Your task to perform on an android device: toggle wifi Image 0: 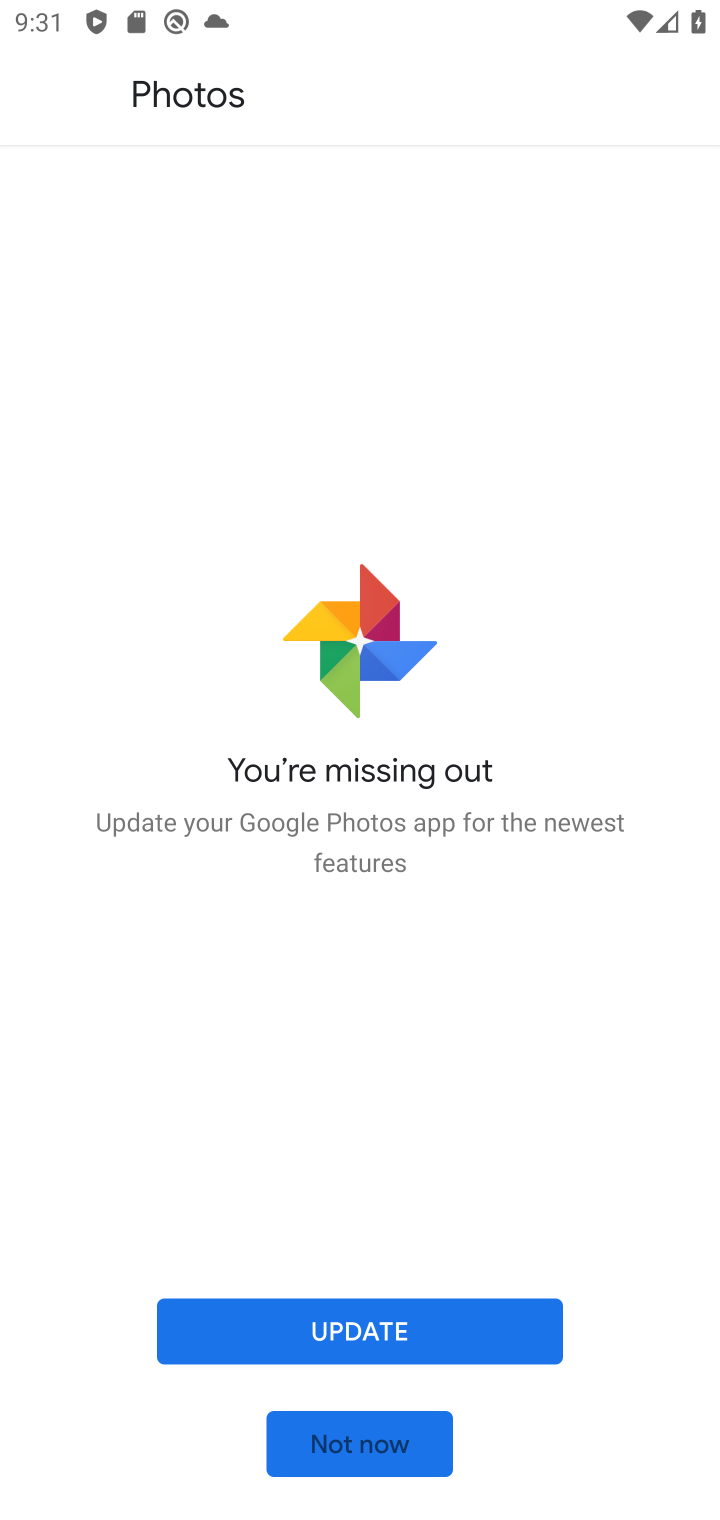
Step 0: press home button
Your task to perform on an android device: toggle wifi Image 1: 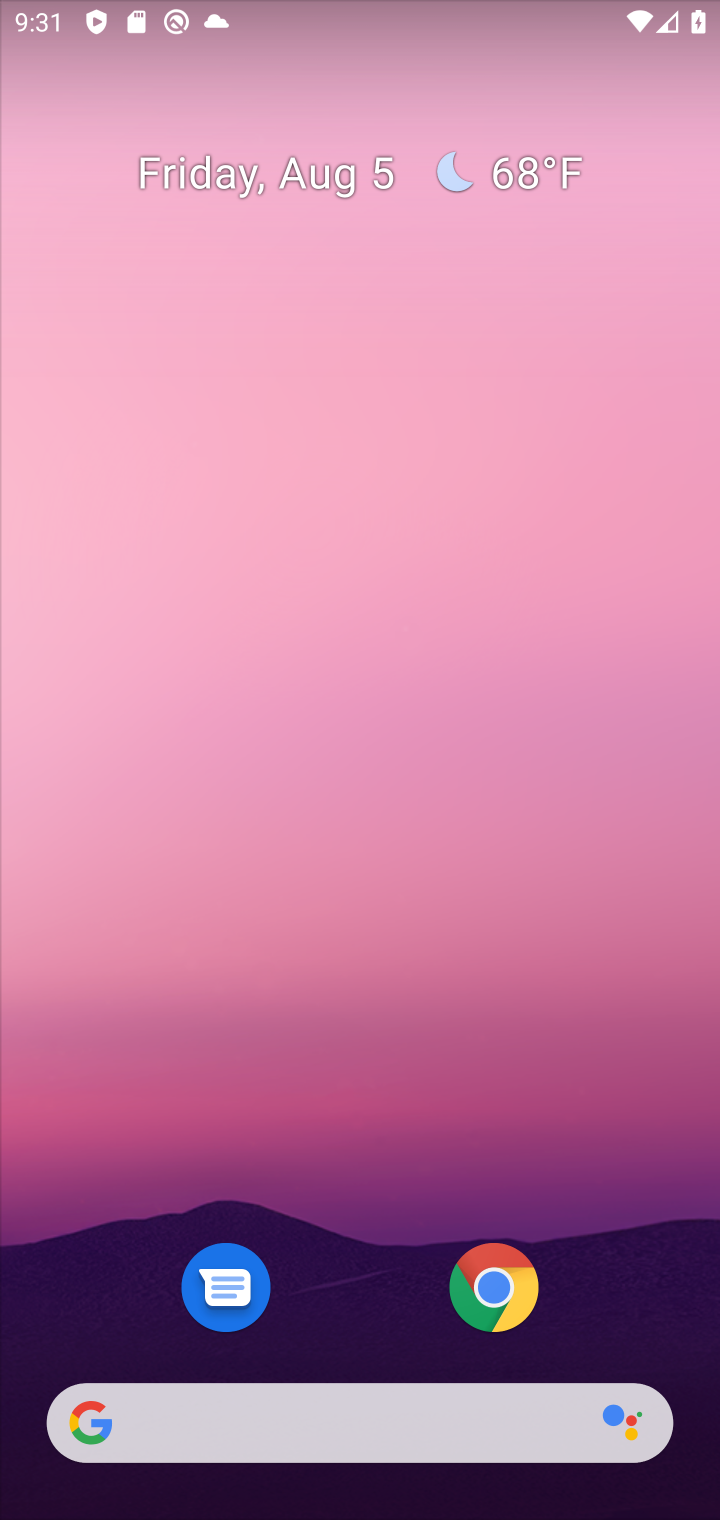
Step 1: drag from (346, 866) to (346, 97)
Your task to perform on an android device: toggle wifi Image 2: 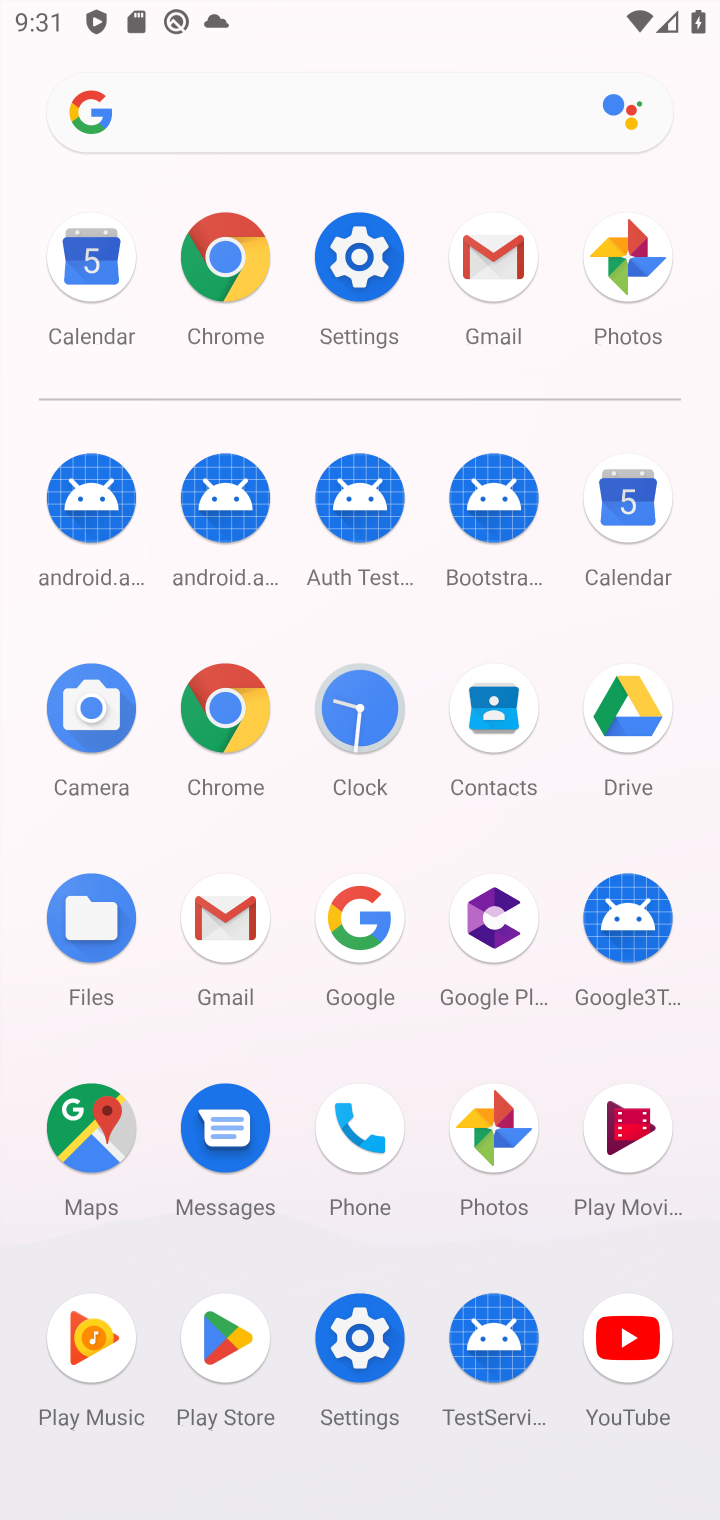
Step 2: click (360, 255)
Your task to perform on an android device: toggle wifi Image 3: 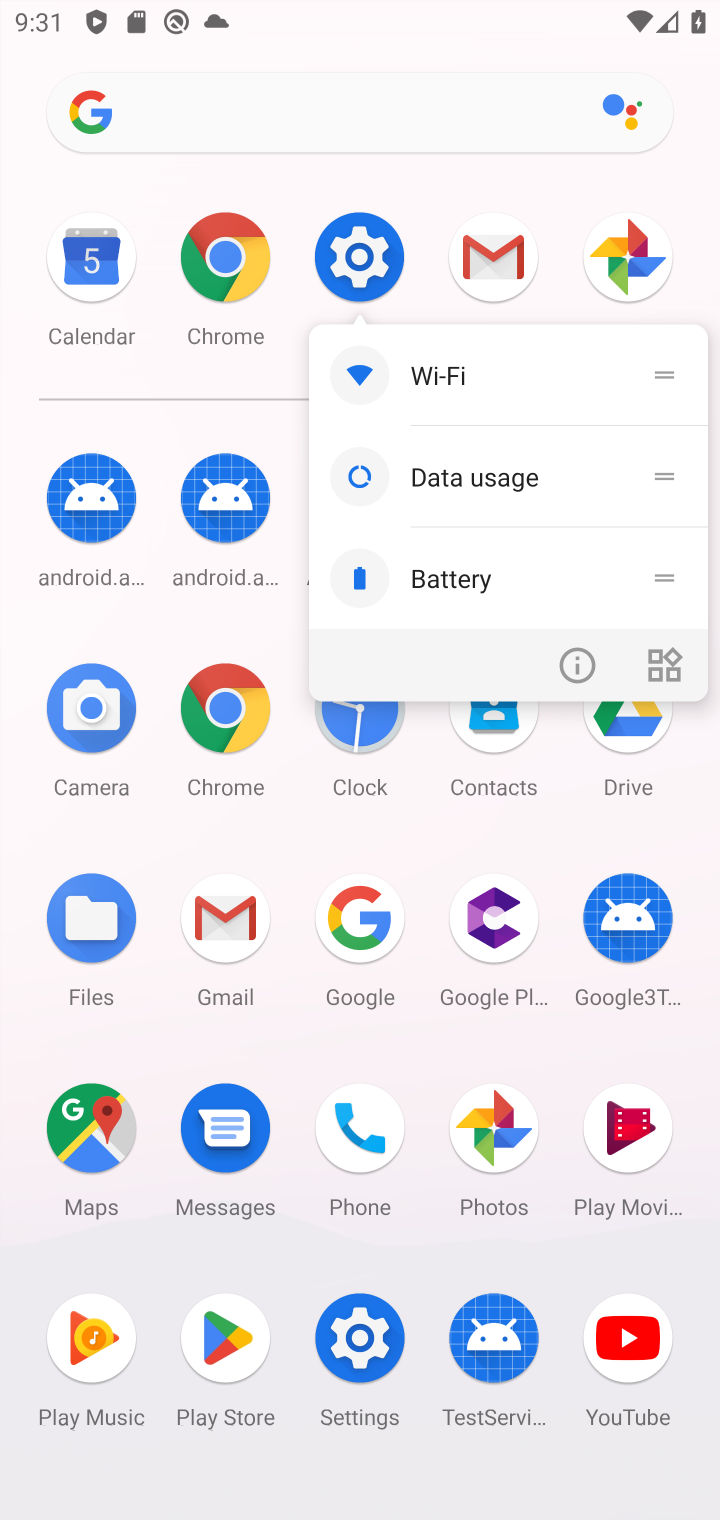
Step 3: click (350, 251)
Your task to perform on an android device: toggle wifi Image 4: 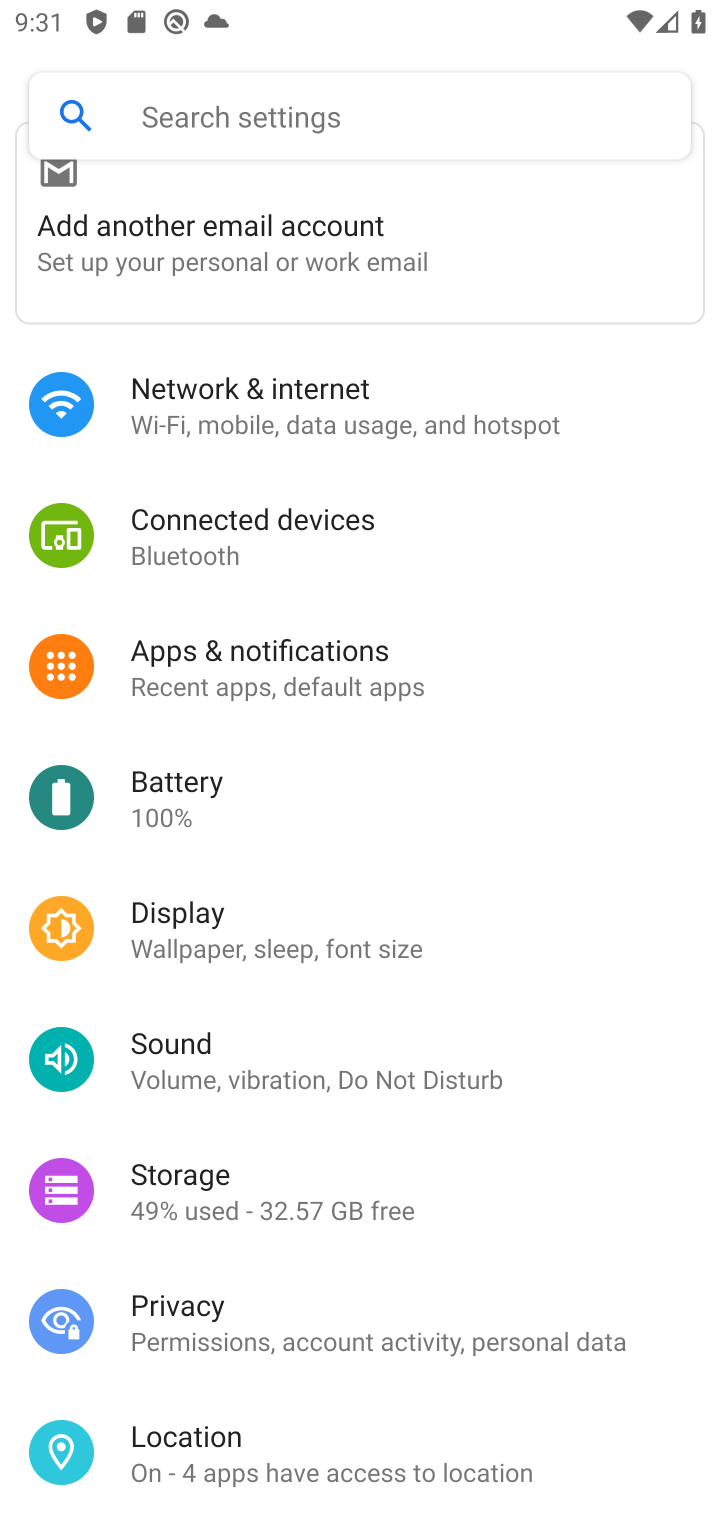
Step 4: drag from (267, 471) to (296, 1084)
Your task to perform on an android device: toggle wifi Image 5: 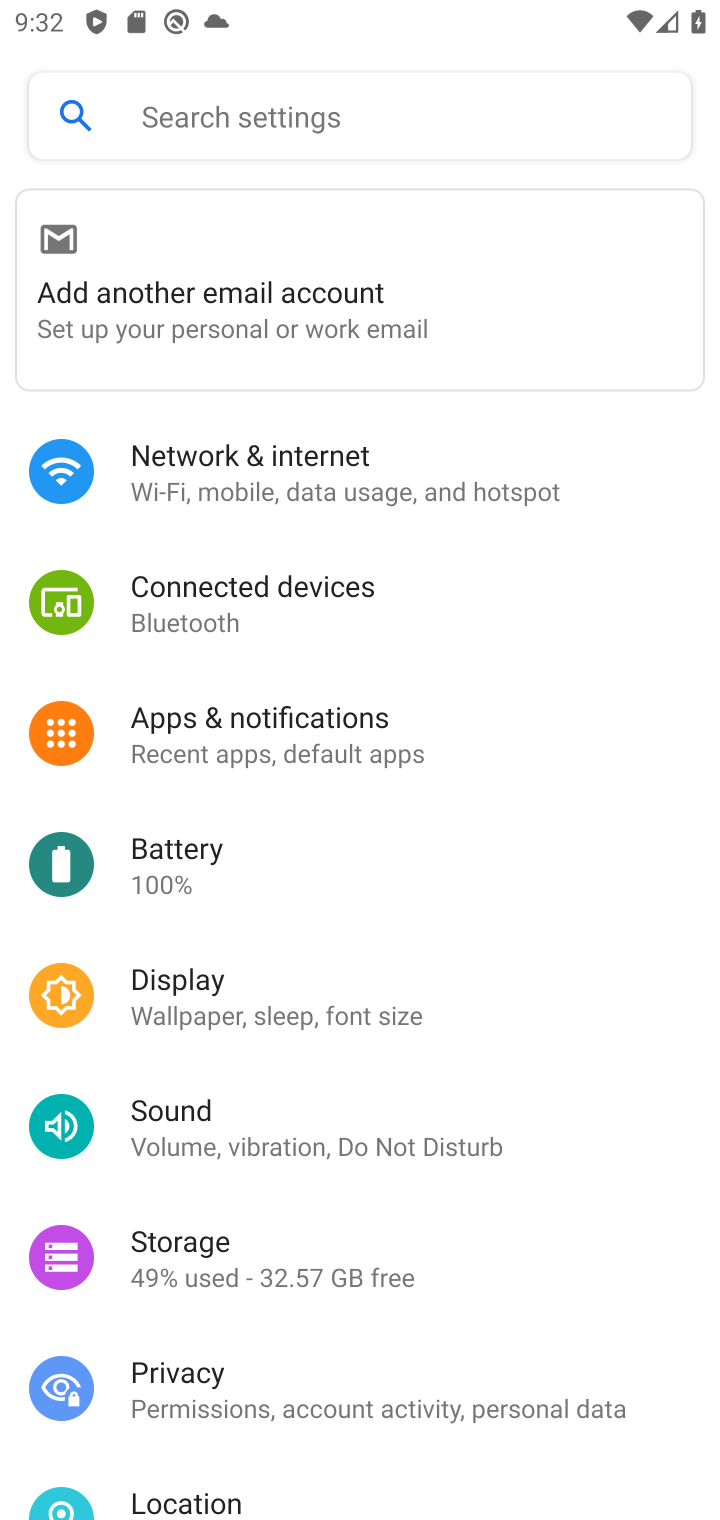
Step 5: click (261, 464)
Your task to perform on an android device: toggle wifi Image 6: 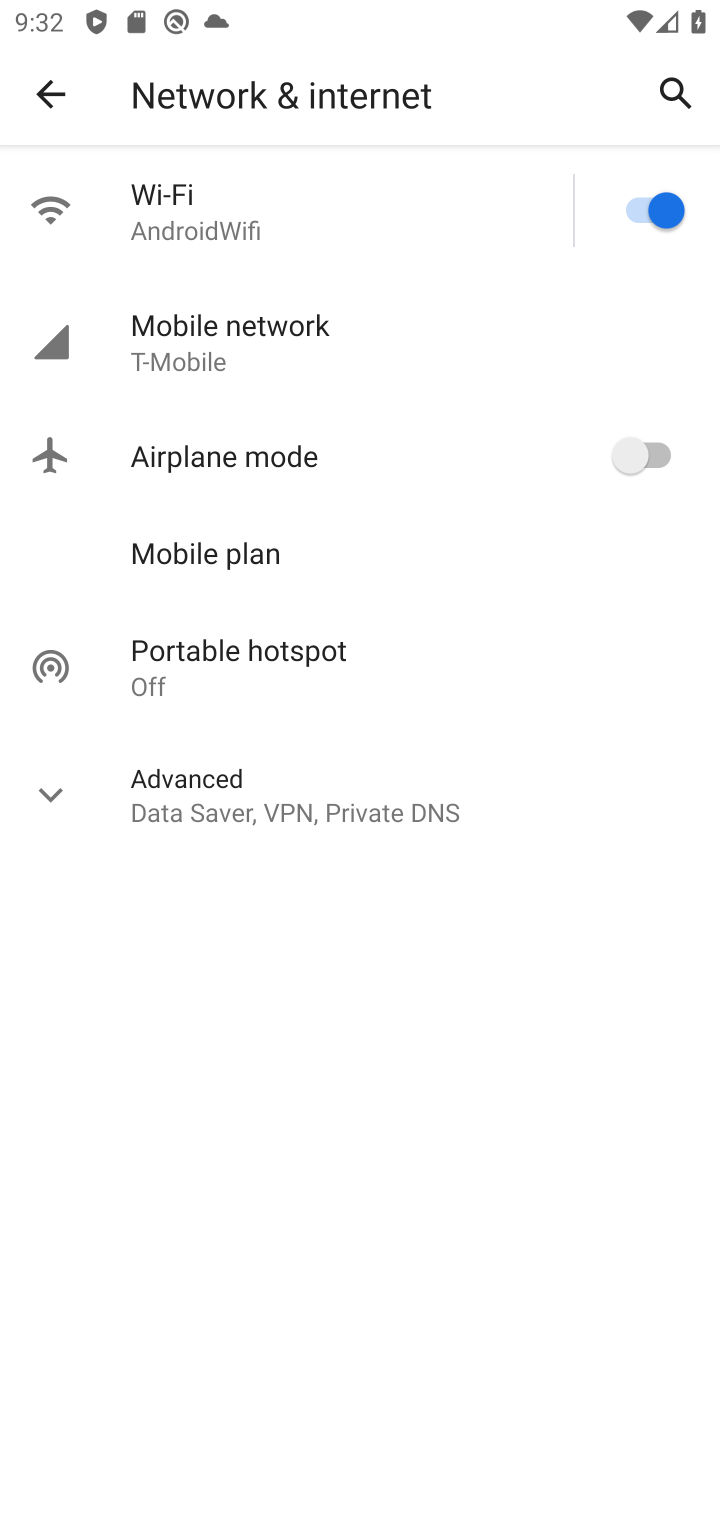
Step 6: click (650, 205)
Your task to perform on an android device: toggle wifi Image 7: 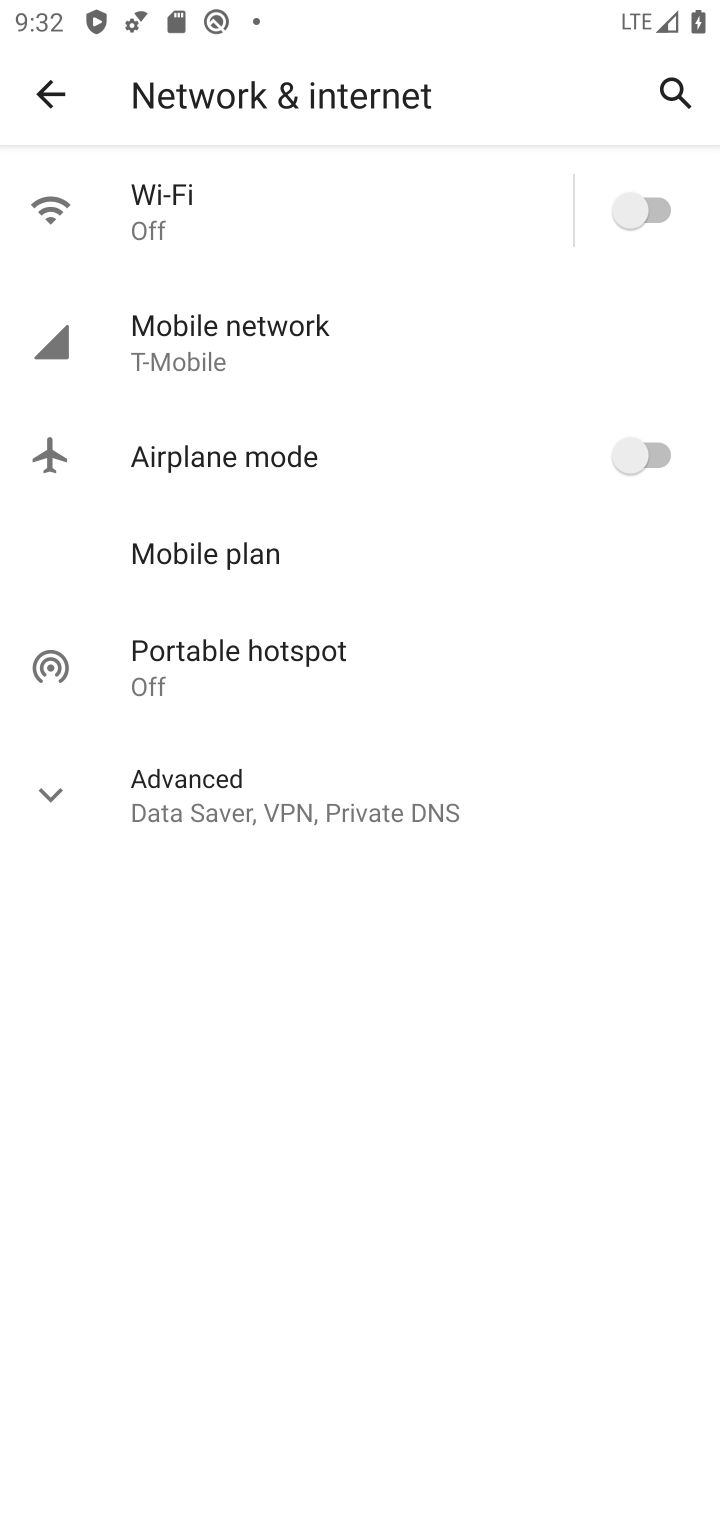
Step 7: task complete